Your task to perform on an android device: Search for vegetarian restaurants on Maps Image 0: 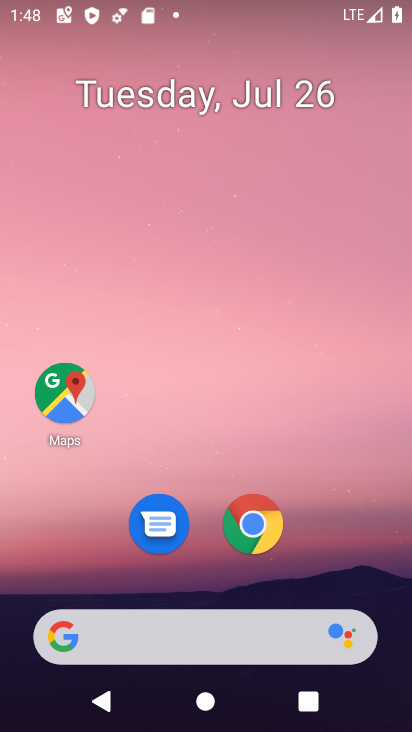
Step 0: drag from (345, 521) to (396, 67)
Your task to perform on an android device: Search for vegetarian restaurants on Maps Image 1: 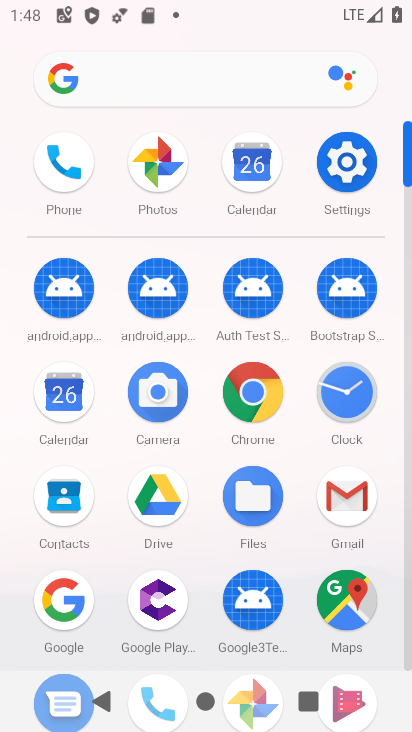
Step 1: click (340, 590)
Your task to perform on an android device: Search for vegetarian restaurants on Maps Image 2: 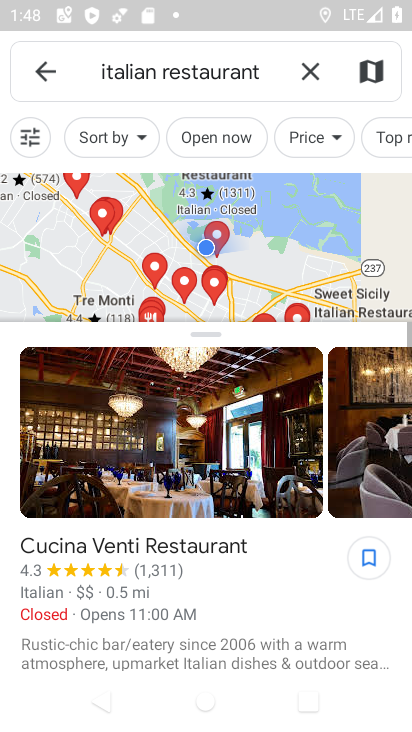
Step 2: click (315, 77)
Your task to perform on an android device: Search for vegetarian restaurants on Maps Image 3: 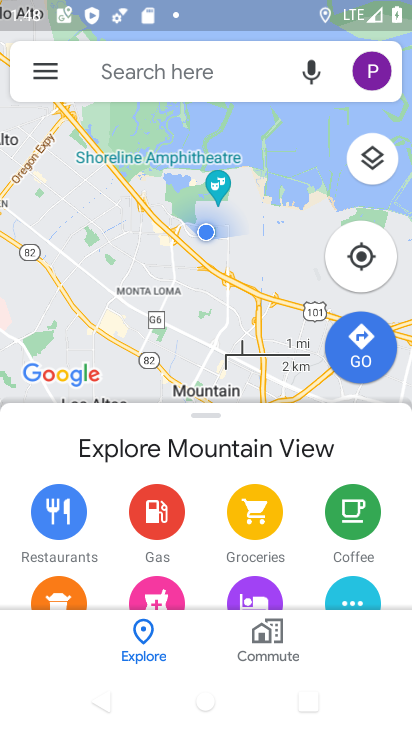
Step 3: click (156, 68)
Your task to perform on an android device: Search for vegetarian restaurants on Maps Image 4: 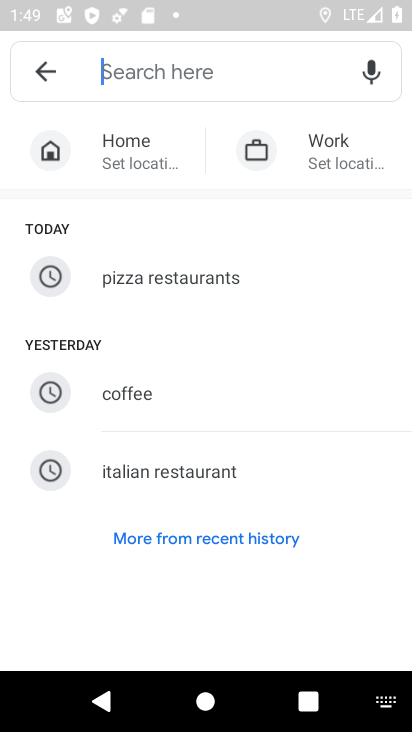
Step 4: click (289, 537)
Your task to perform on an android device: Search for vegetarian restaurants on Maps Image 5: 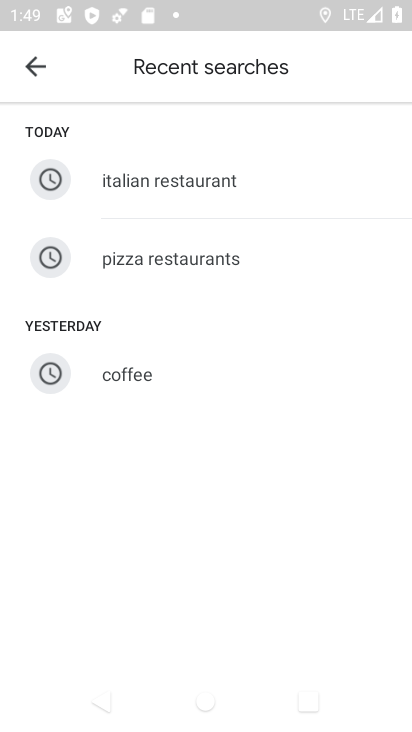
Step 5: type "vegitarian restaurants"
Your task to perform on an android device: Search for vegetarian restaurants on Maps Image 6: 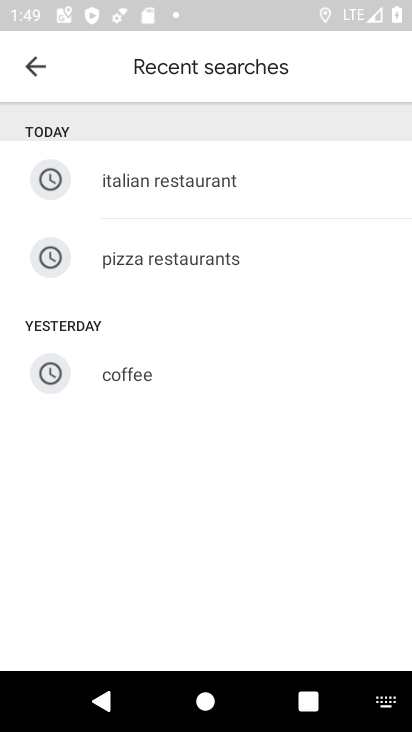
Step 6: click (267, 62)
Your task to perform on an android device: Search for vegetarian restaurants on Maps Image 7: 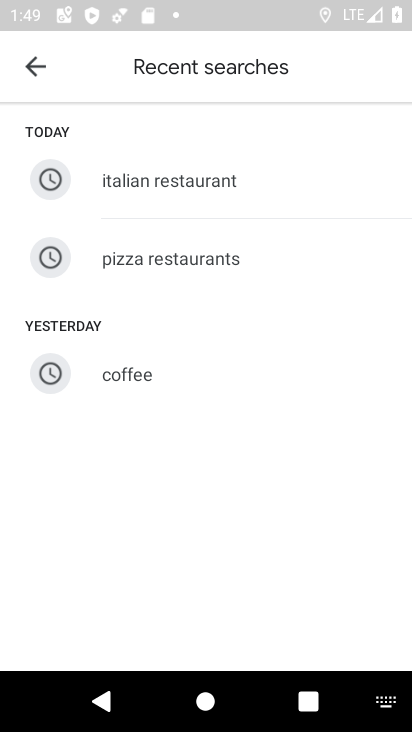
Step 7: click (39, 60)
Your task to perform on an android device: Search for vegetarian restaurants on Maps Image 8: 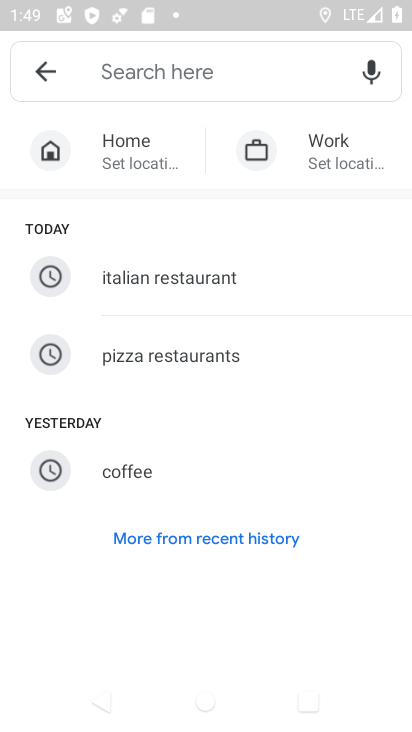
Step 8: click (213, 64)
Your task to perform on an android device: Search for vegetarian restaurants on Maps Image 9: 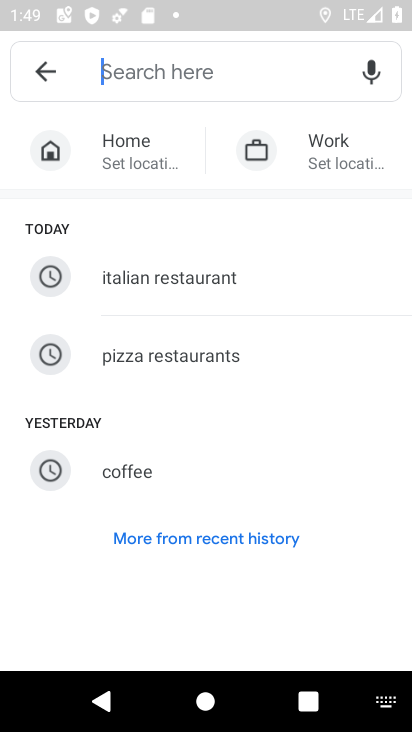
Step 9: type "Vegetarian restaurants"
Your task to perform on an android device: Search for vegetarian restaurants on Maps Image 10: 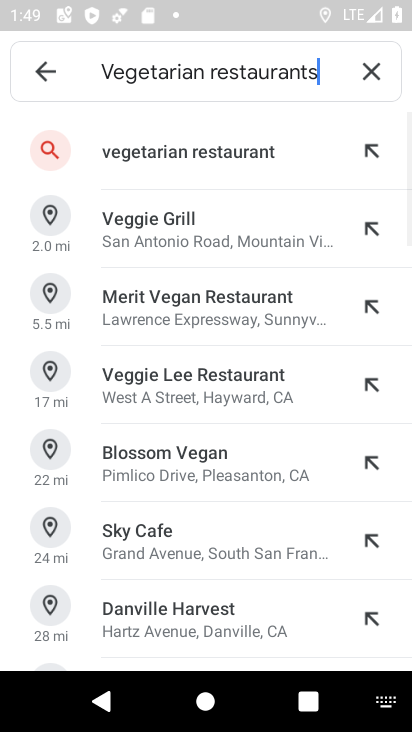
Step 10: click (203, 142)
Your task to perform on an android device: Search for vegetarian restaurants on Maps Image 11: 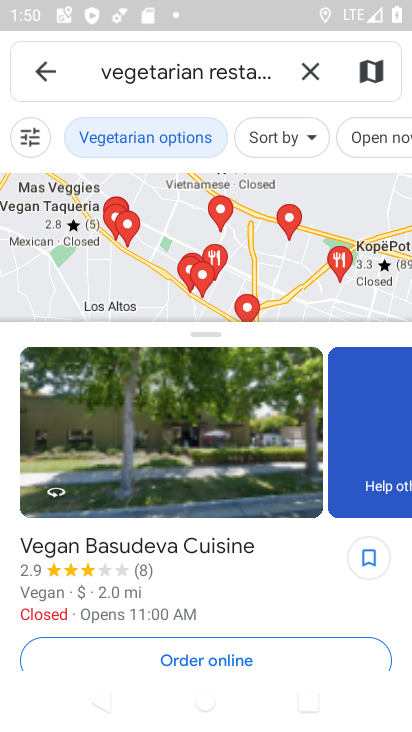
Step 11: task complete